Your task to perform on an android device: Open the map Image 0: 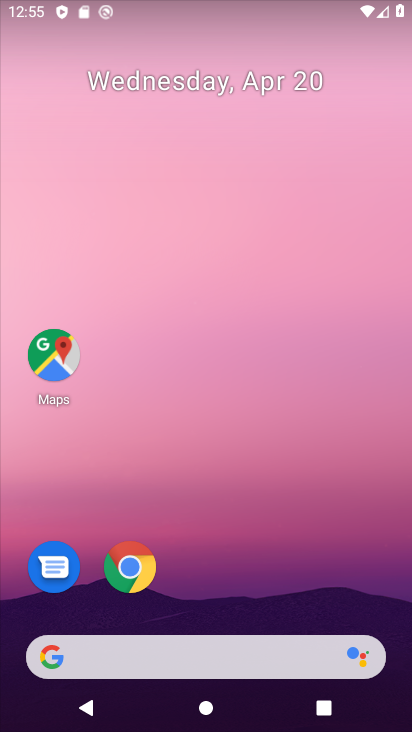
Step 0: click (57, 354)
Your task to perform on an android device: Open the map Image 1: 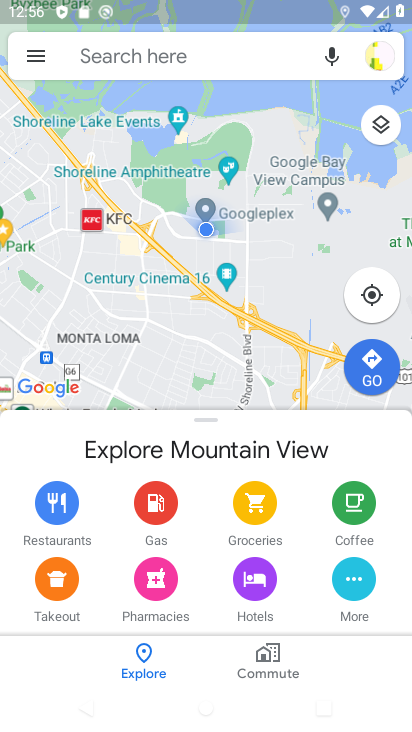
Step 1: task complete